Your task to perform on an android device: Open maps Image 0: 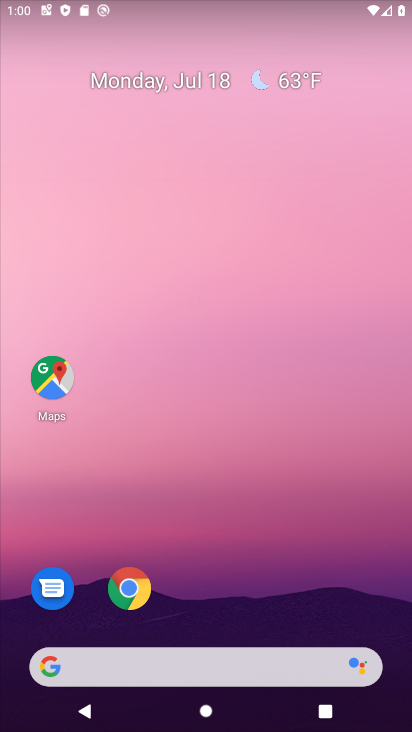
Step 0: click (52, 382)
Your task to perform on an android device: Open maps Image 1: 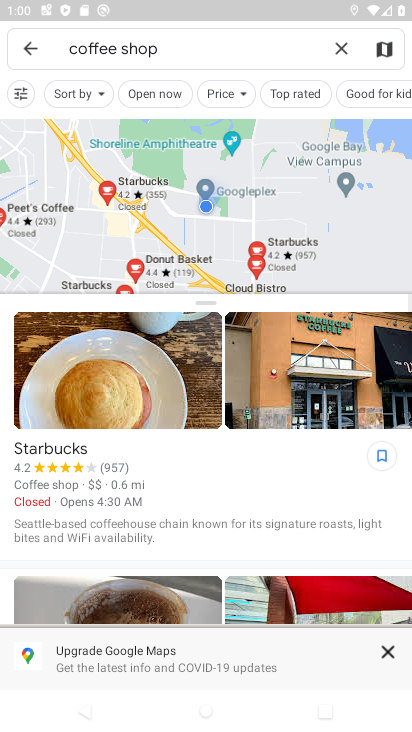
Step 1: task complete